Your task to perform on an android device: toggle show notifications on the lock screen Image 0: 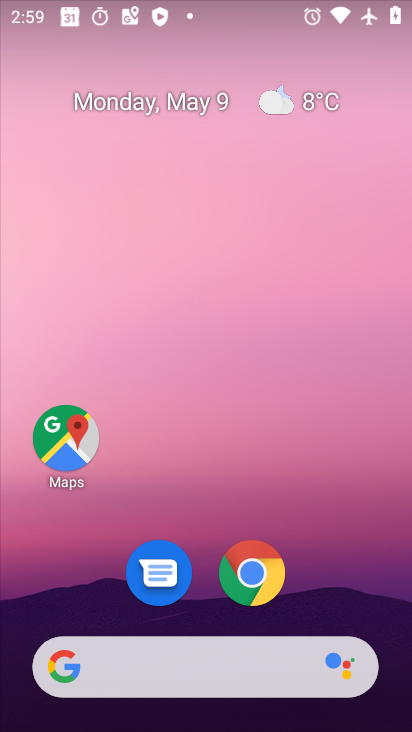
Step 0: drag from (206, 655) to (343, 281)
Your task to perform on an android device: toggle show notifications on the lock screen Image 1: 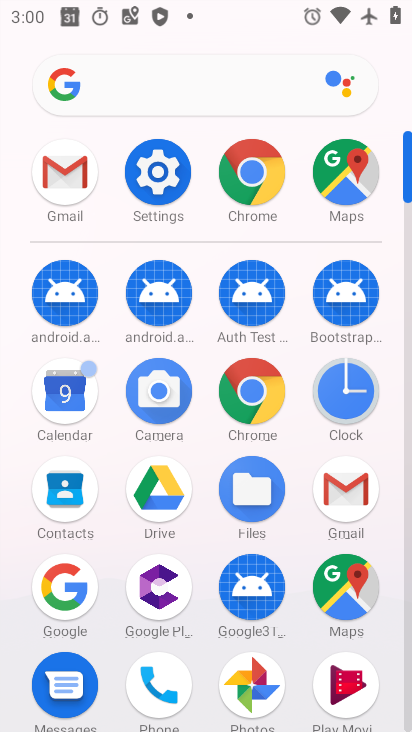
Step 1: click (164, 174)
Your task to perform on an android device: toggle show notifications on the lock screen Image 2: 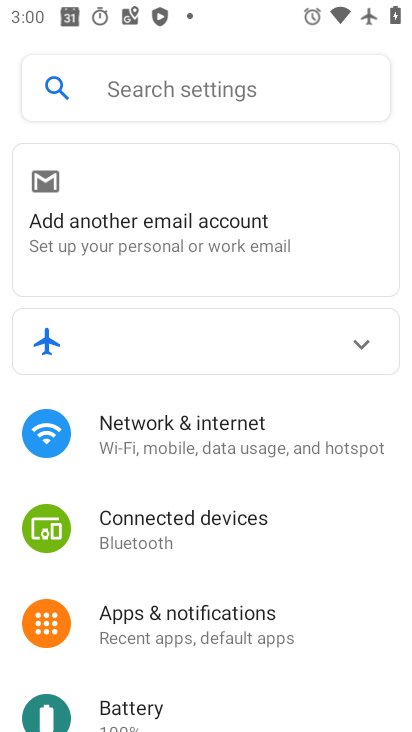
Step 2: click (186, 630)
Your task to perform on an android device: toggle show notifications on the lock screen Image 3: 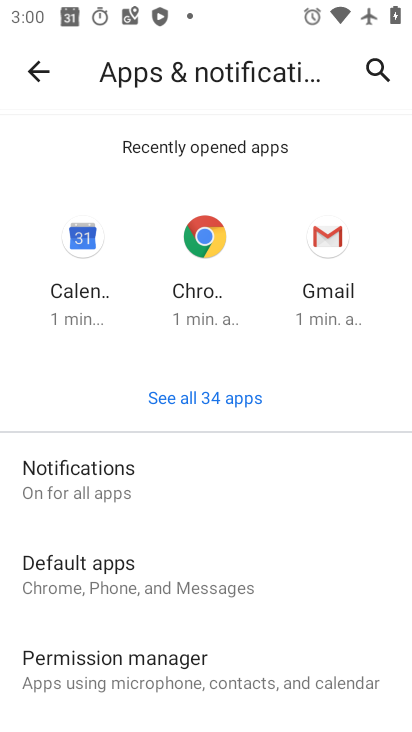
Step 3: click (95, 481)
Your task to perform on an android device: toggle show notifications on the lock screen Image 4: 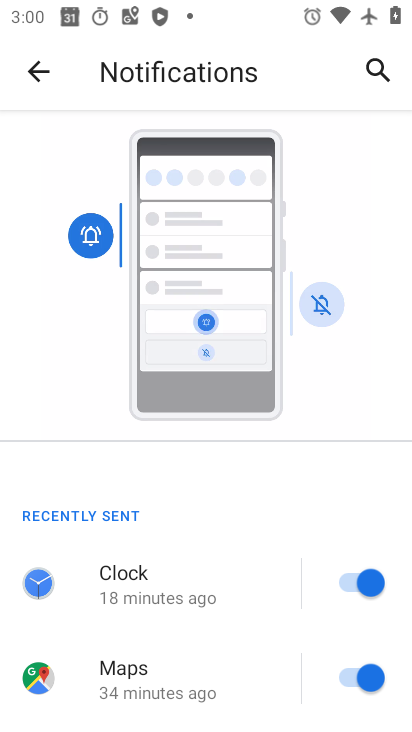
Step 4: drag from (187, 637) to (318, 329)
Your task to perform on an android device: toggle show notifications on the lock screen Image 5: 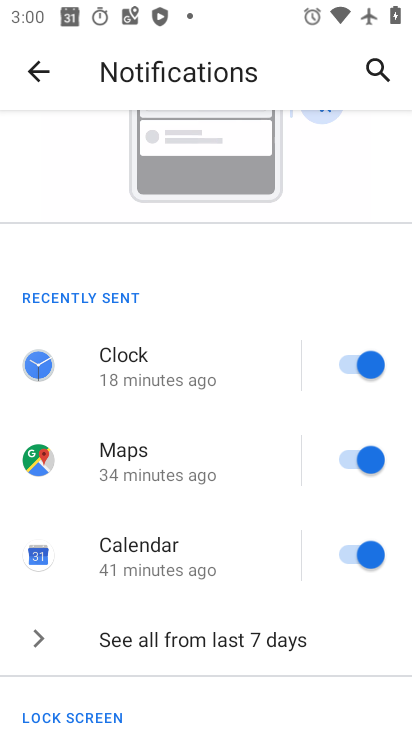
Step 5: drag from (227, 547) to (328, 148)
Your task to perform on an android device: toggle show notifications on the lock screen Image 6: 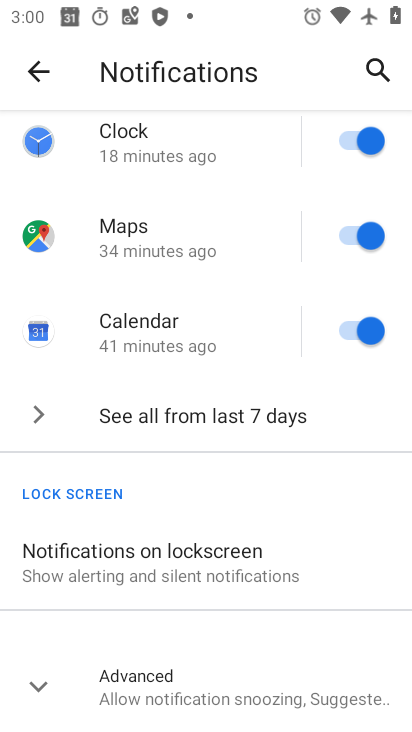
Step 6: click (190, 560)
Your task to perform on an android device: toggle show notifications on the lock screen Image 7: 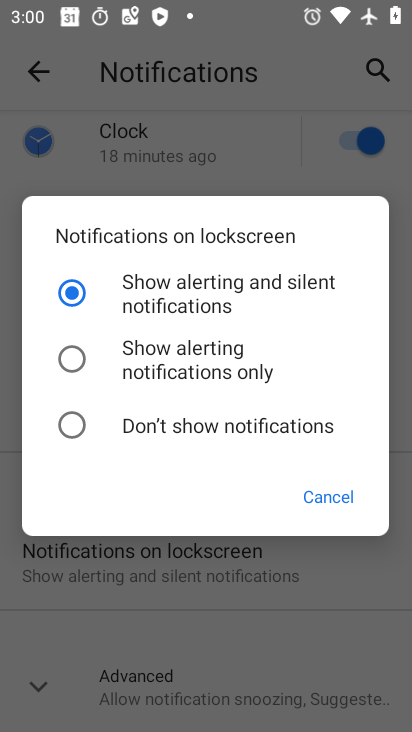
Step 7: click (69, 422)
Your task to perform on an android device: toggle show notifications on the lock screen Image 8: 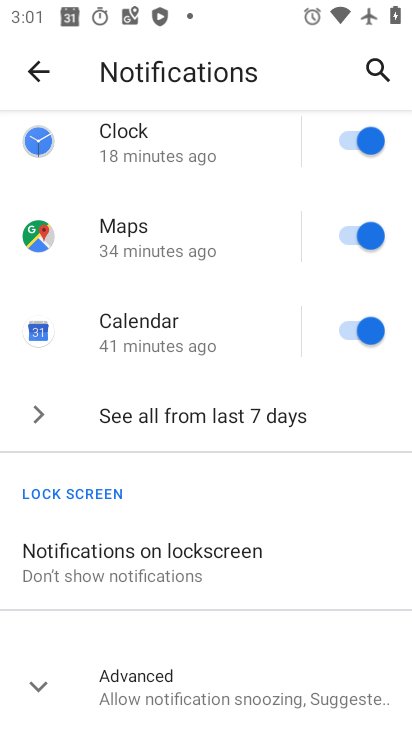
Step 8: task complete